Your task to perform on an android device: check data usage Image 0: 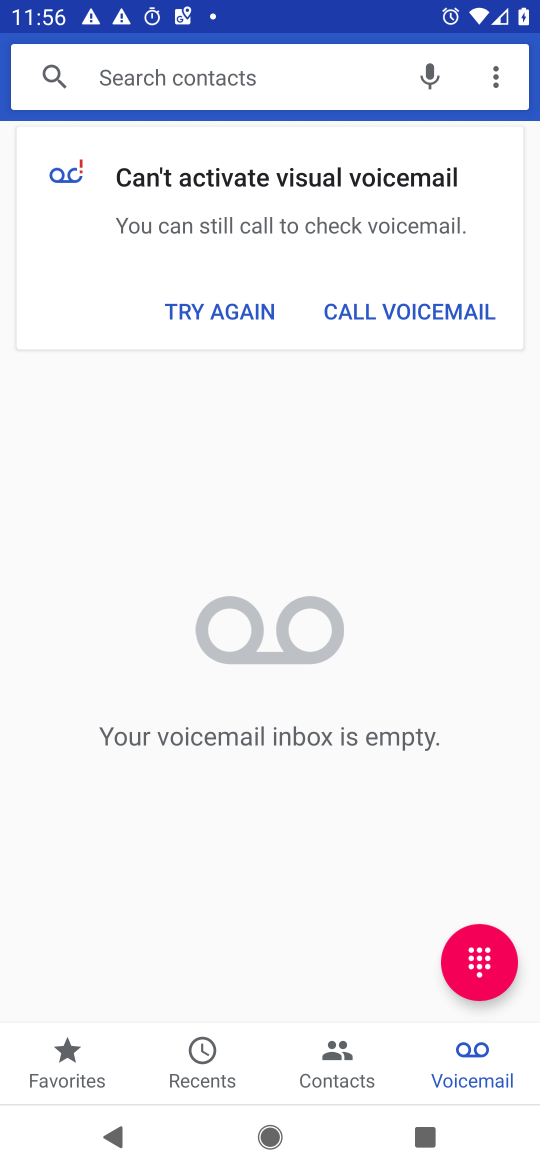
Step 0: click (272, 534)
Your task to perform on an android device: check data usage Image 1: 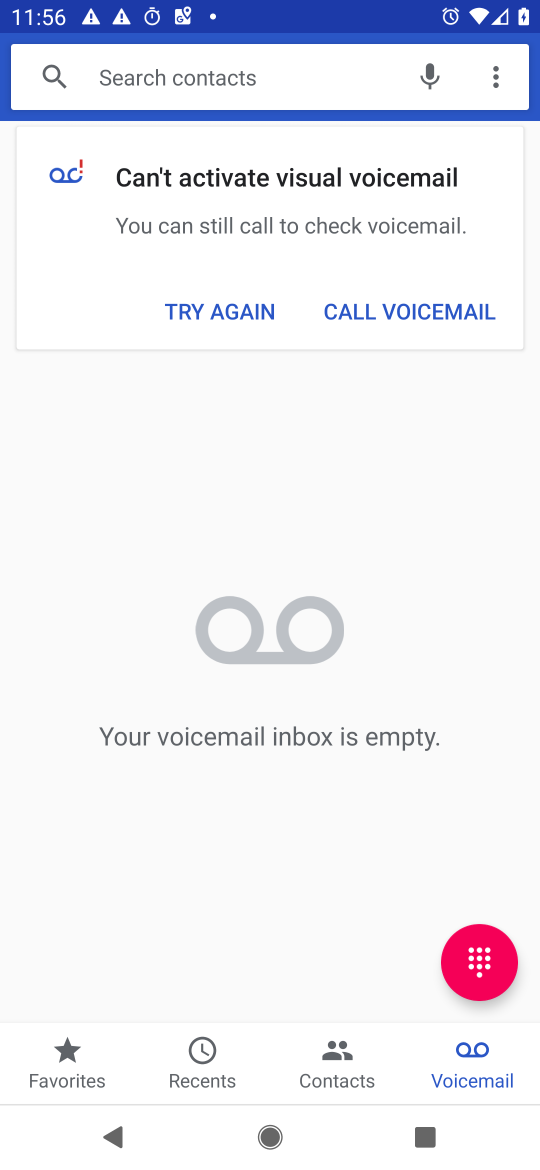
Step 1: press home button
Your task to perform on an android device: check data usage Image 2: 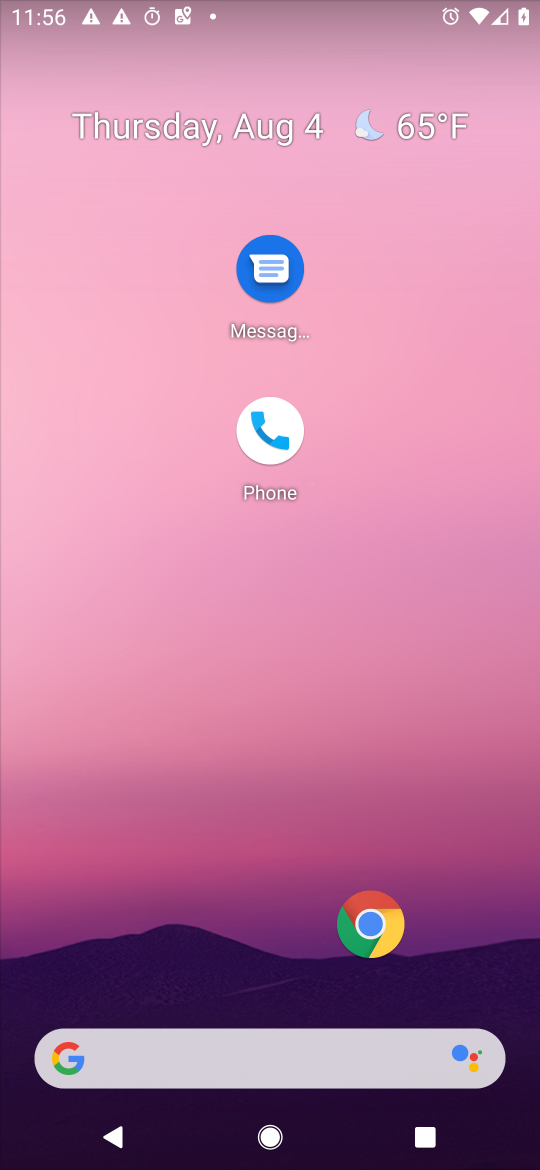
Step 2: drag from (255, 929) to (371, 298)
Your task to perform on an android device: check data usage Image 3: 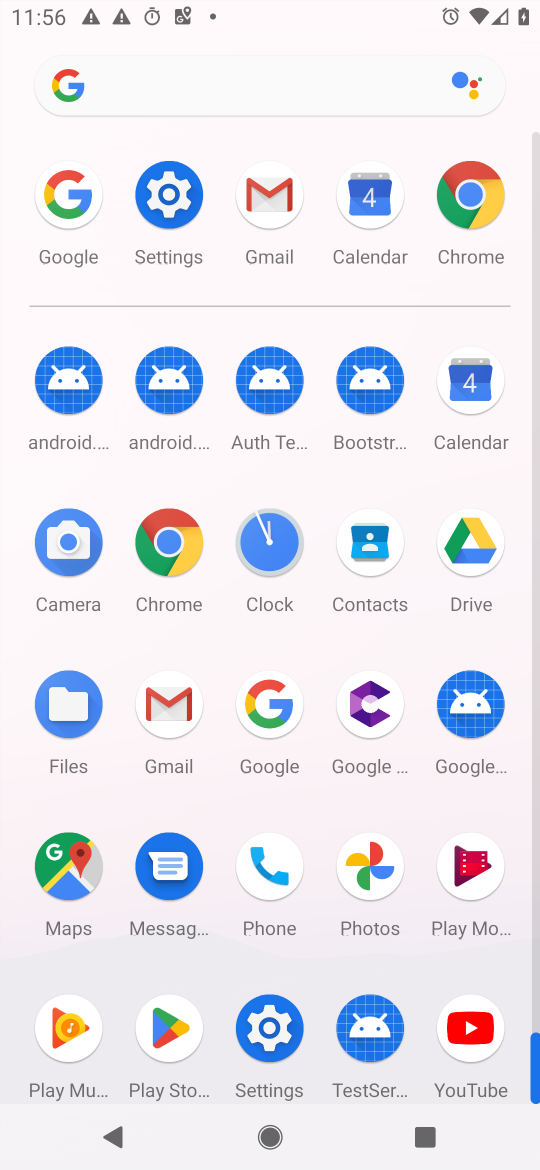
Step 3: click (254, 1002)
Your task to perform on an android device: check data usage Image 4: 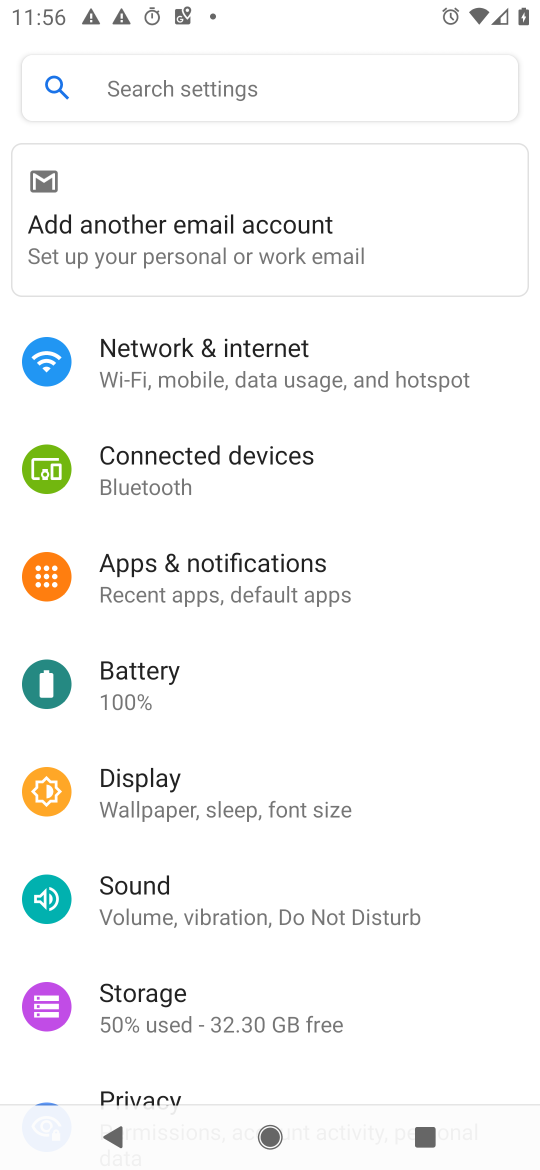
Step 4: click (283, 359)
Your task to perform on an android device: check data usage Image 5: 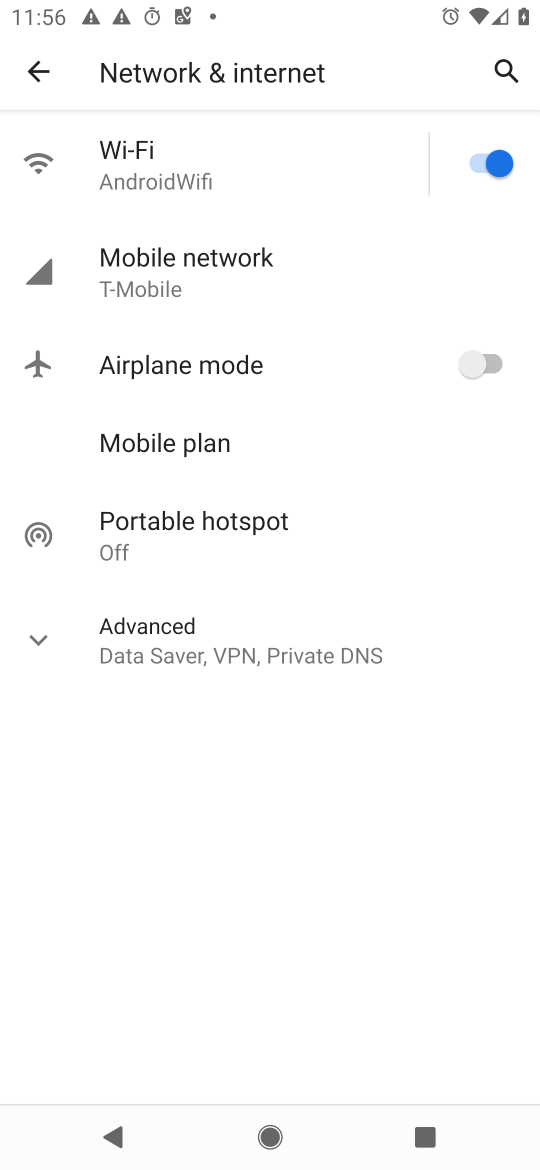
Step 5: click (215, 268)
Your task to perform on an android device: check data usage Image 6: 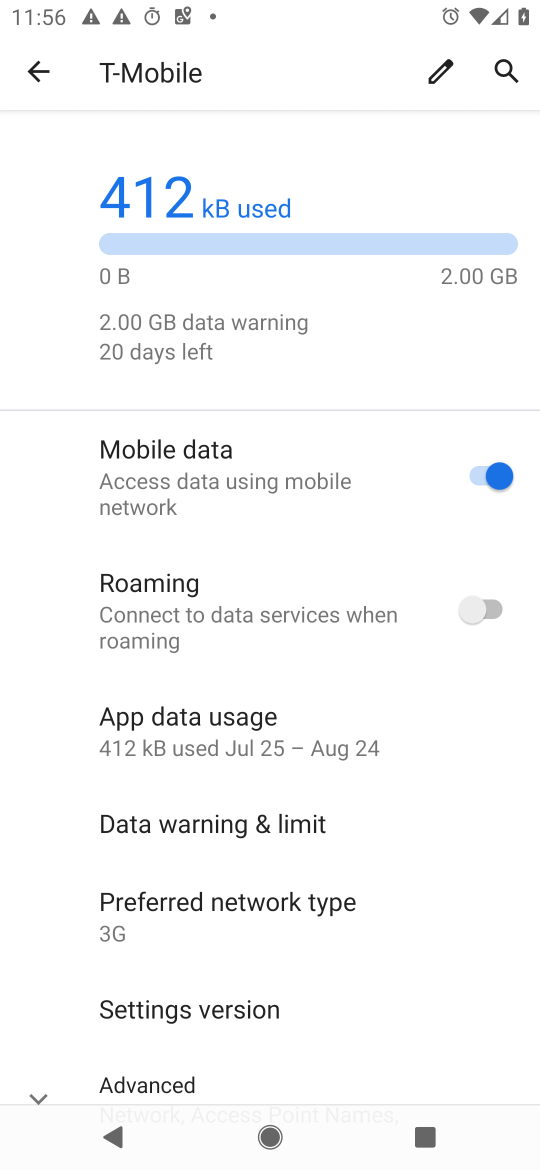
Step 6: task complete